Your task to perform on an android device: turn pop-ups off in chrome Image 0: 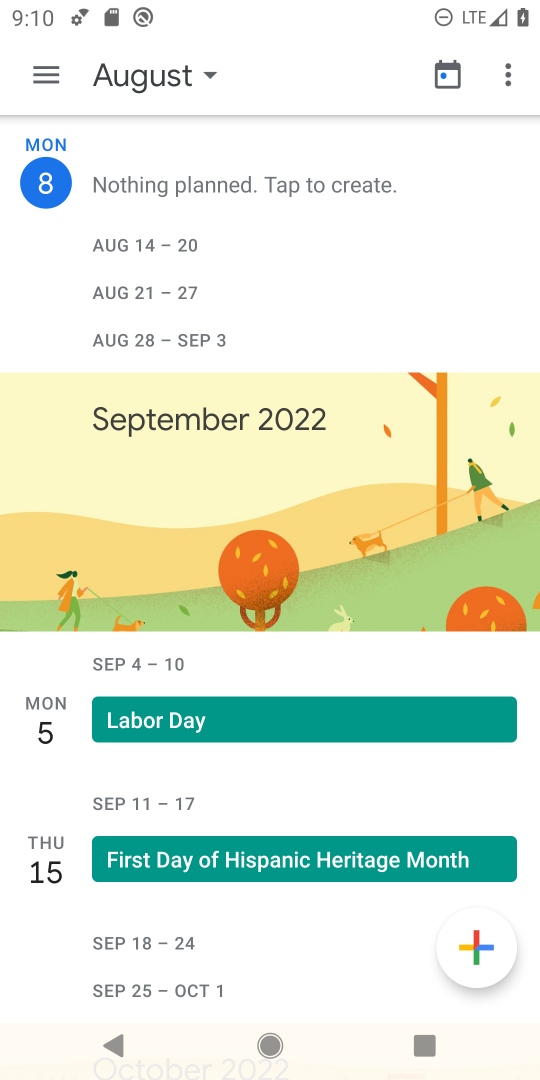
Step 0: press home button
Your task to perform on an android device: turn pop-ups off in chrome Image 1: 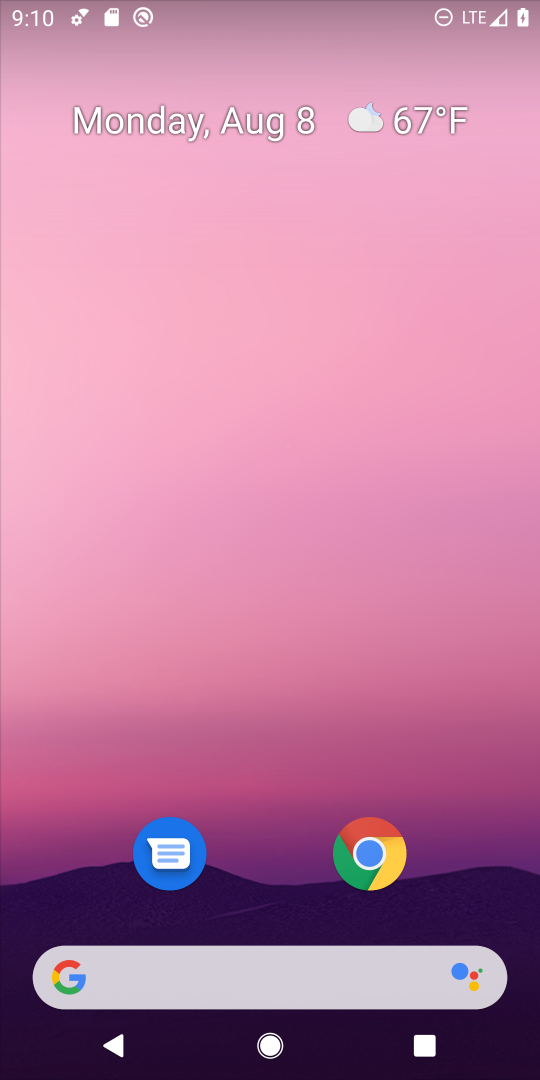
Step 1: click (382, 860)
Your task to perform on an android device: turn pop-ups off in chrome Image 2: 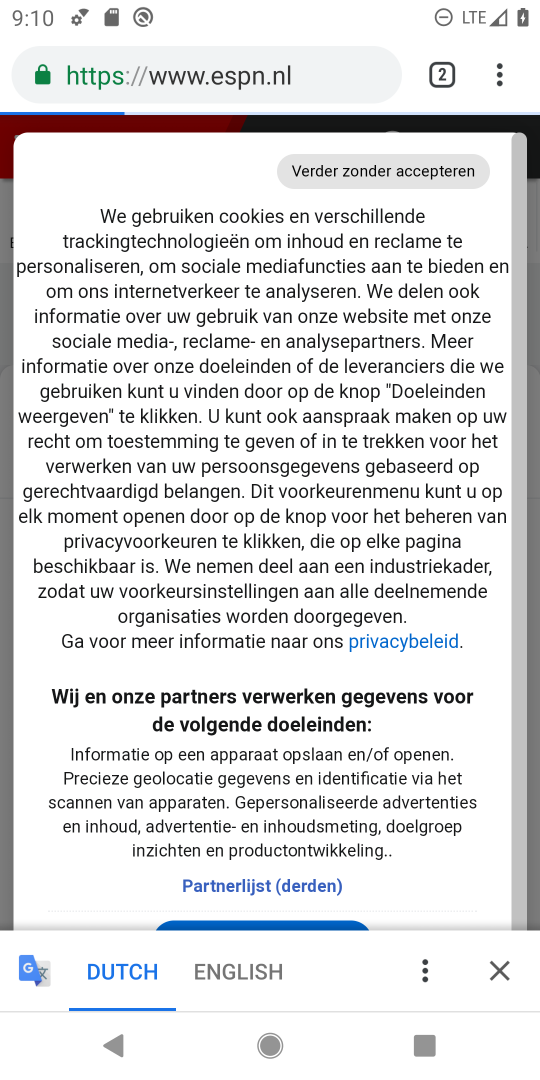
Step 2: click (498, 71)
Your task to perform on an android device: turn pop-ups off in chrome Image 3: 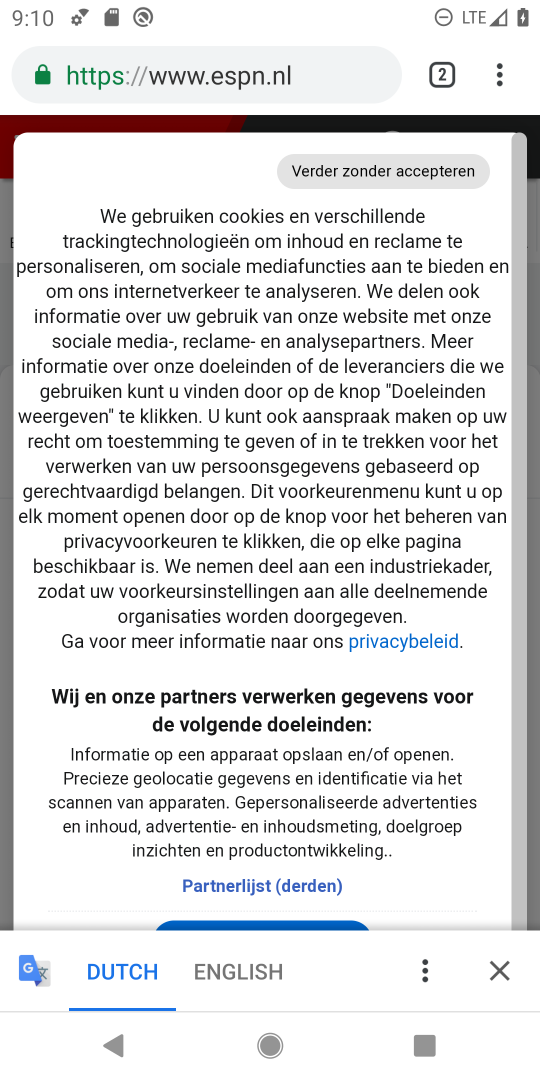
Step 3: click (498, 71)
Your task to perform on an android device: turn pop-ups off in chrome Image 4: 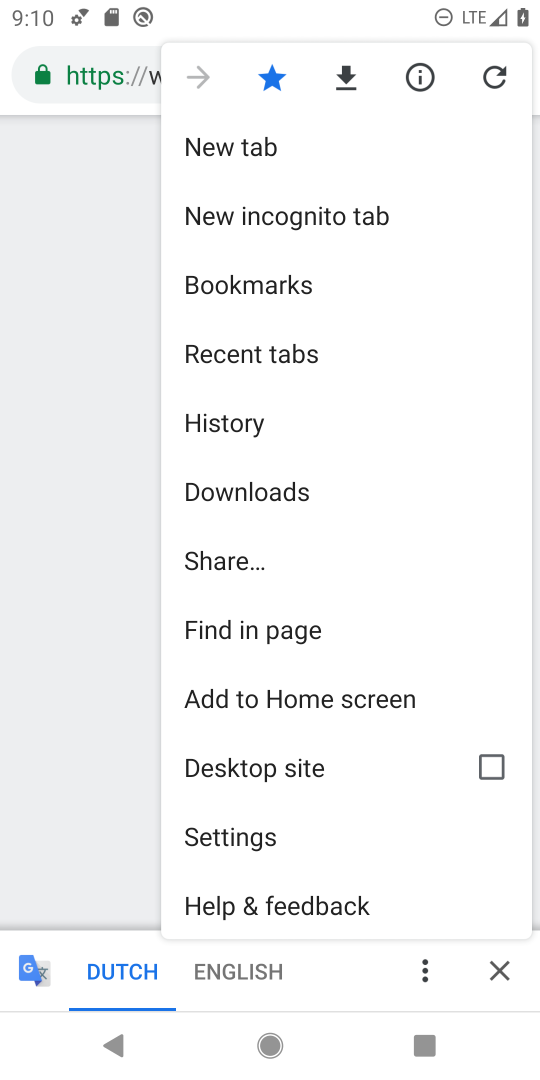
Step 4: click (252, 846)
Your task to perform on an android device: turn pop-ups off in chrome Image 5: 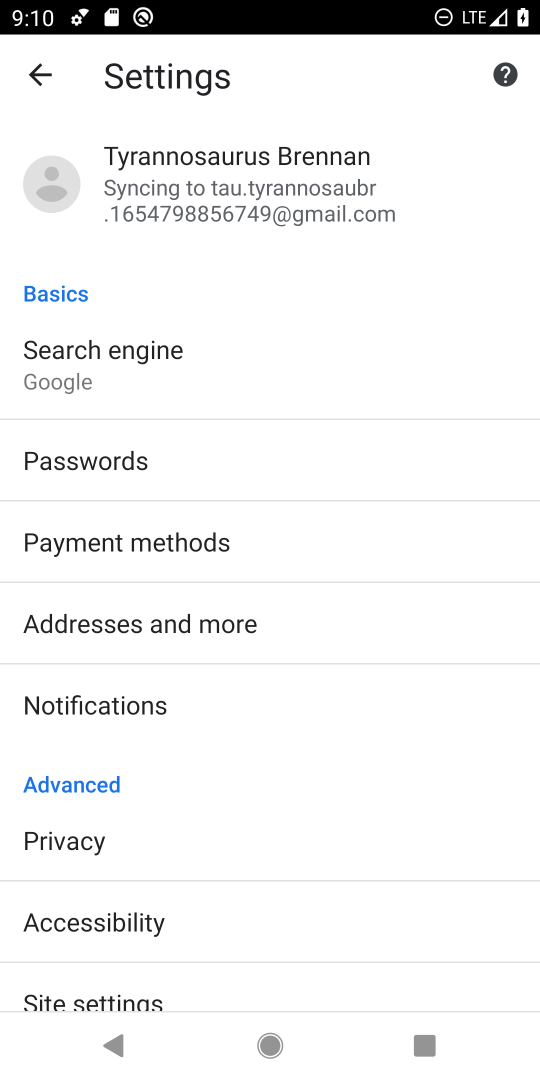
Step 5: click (116, 998)
Your task to perform on an android device: turn pop-ups off in chrome Image 6: 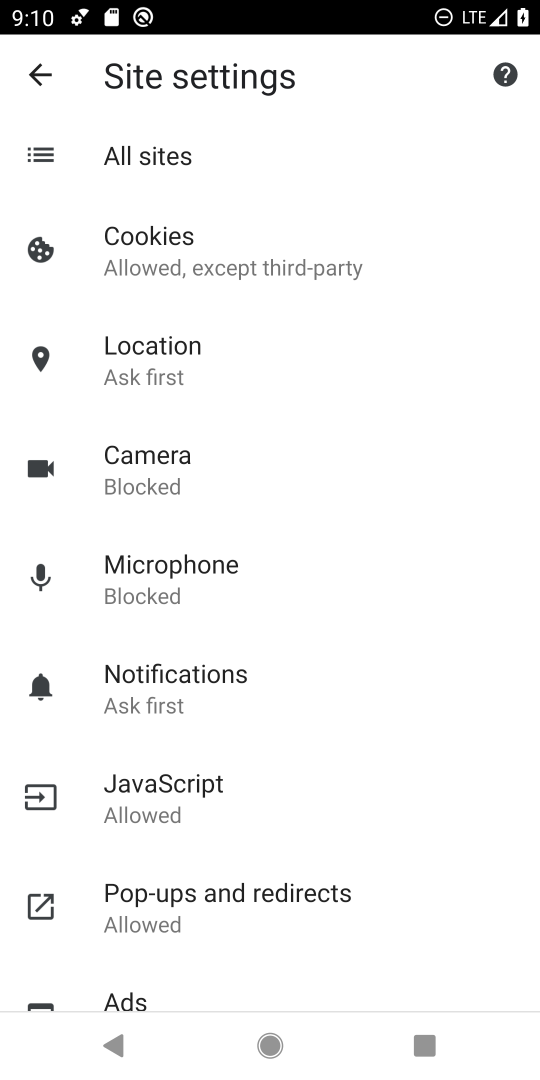
Step 6: click (184, 902)
Your task to perform on an android device: turn pop-ups off in chrome Image 7: 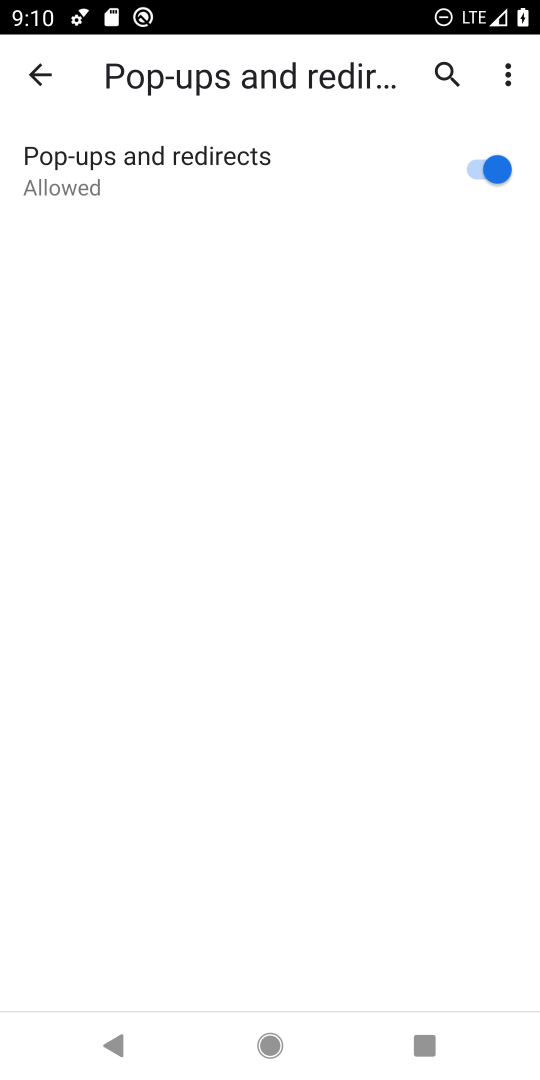
Step 7: click (485, 167)
Your task to perform on an android device: turn pop-ups off in chrome Image 8: 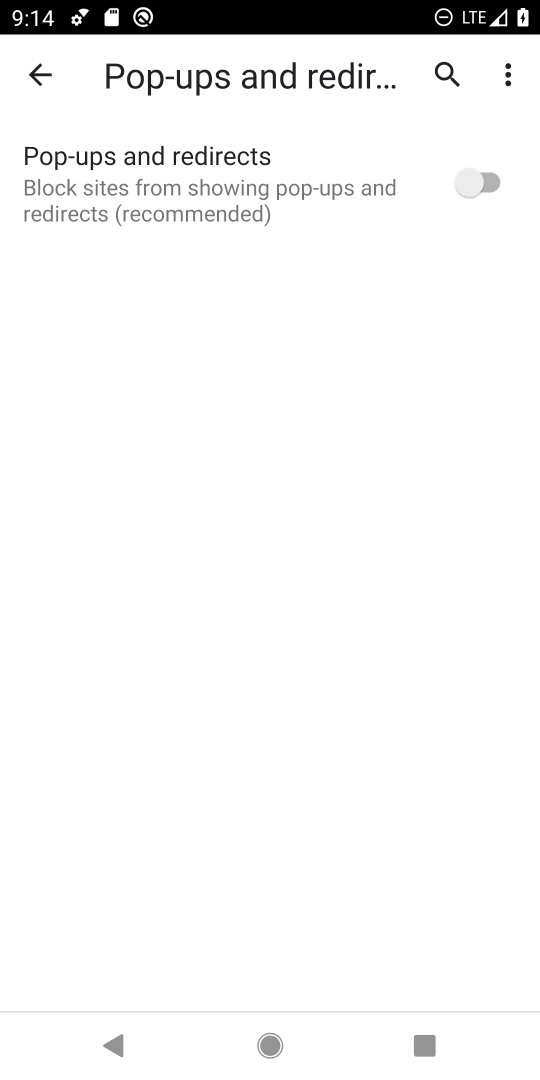
Step 8: task complete